Your task to perform on an android device: toggle notification dots Image 0: 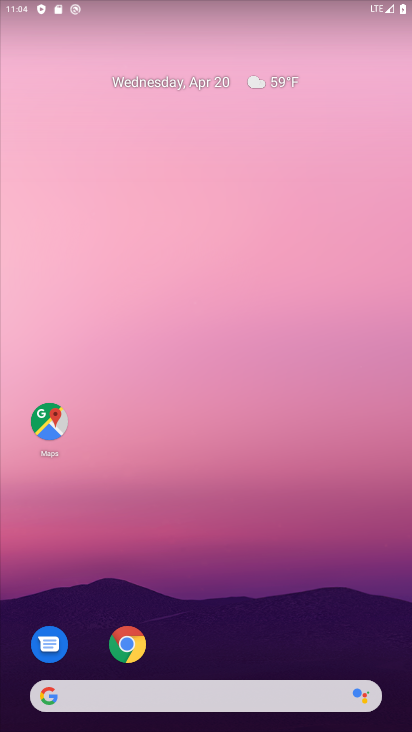
Step 0: drag from (295, 385) to (287, 0)
Your task to perform on an android device: toggle notification dots Image 1: 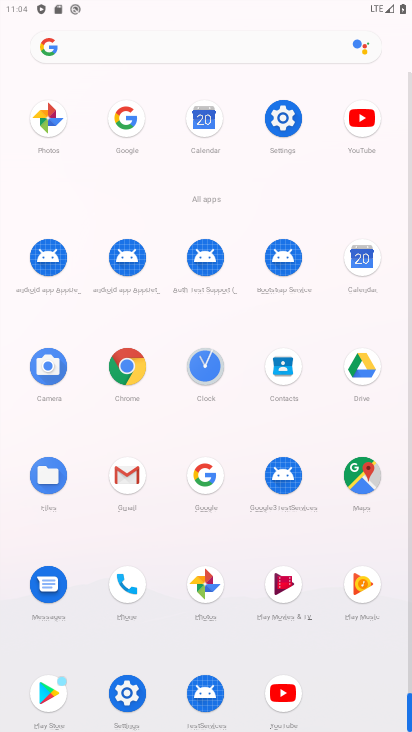
Step 1: click (132, 699)
Your task to perform on an android device: toggle notification dots Image 2: 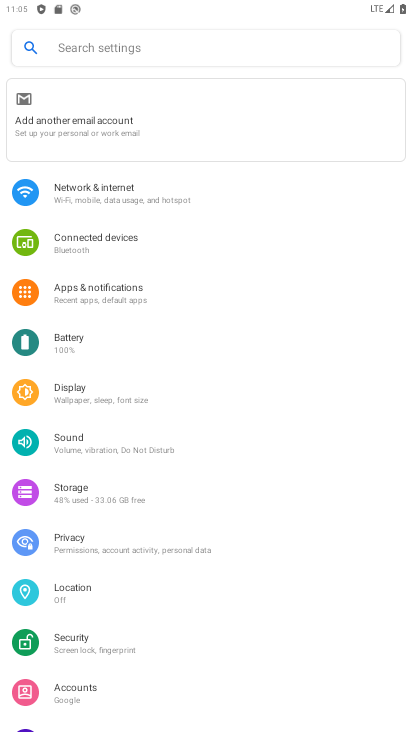
Step 2: click (82, 287)
Your task to perform on an android device: toggle notification dots Image 3: 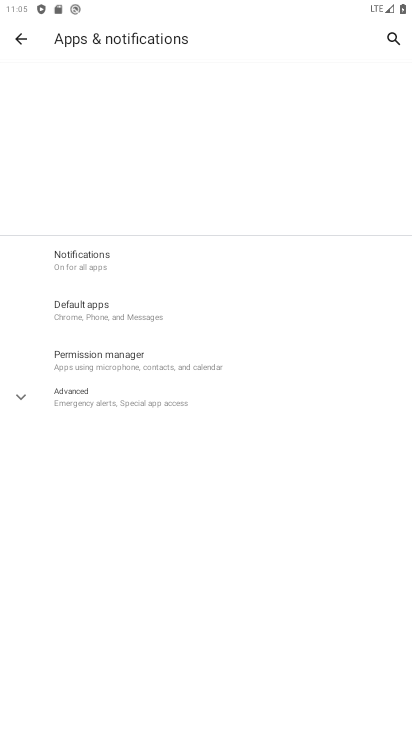
Step 3: click (82, 285)
Your task to perform on an android device: toggle notification dots Image 4: 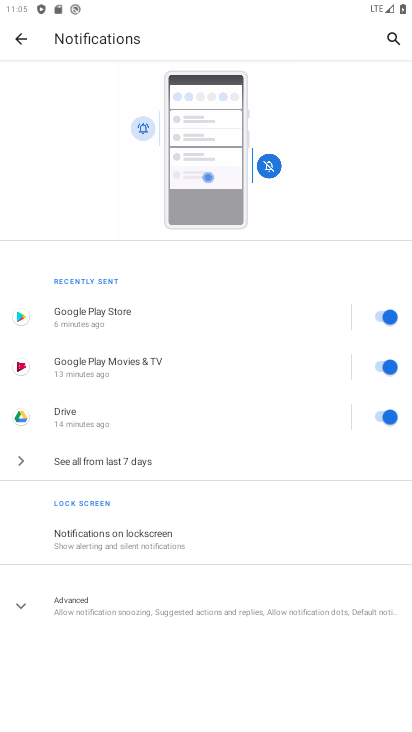
Step 4: click (131, 612)
Your task to perform on an android device: toggle notification dots Image 5: 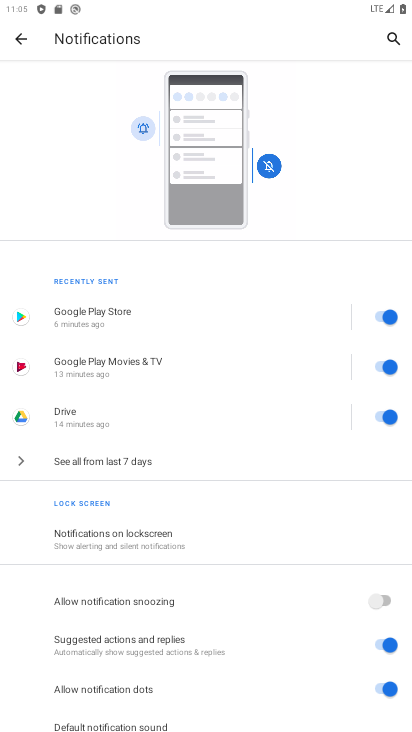
Step 5: click (378, 687)
Your task to perform on an android device: toggle notification dots Image 6: 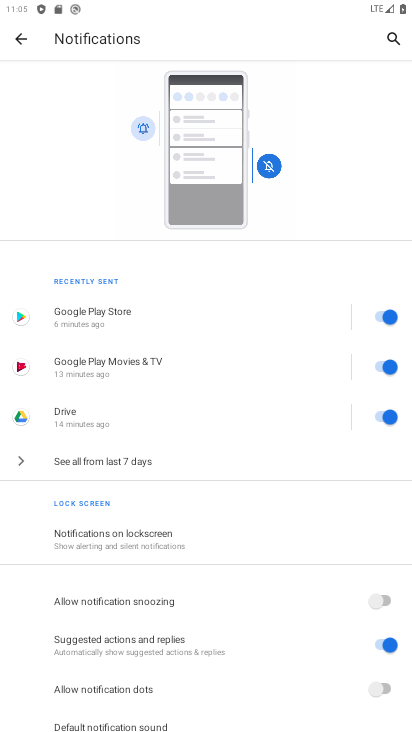
Step 6: task complete